Your task to perform on an android device: Open Google Maps and go to "Timeline" Image 0: 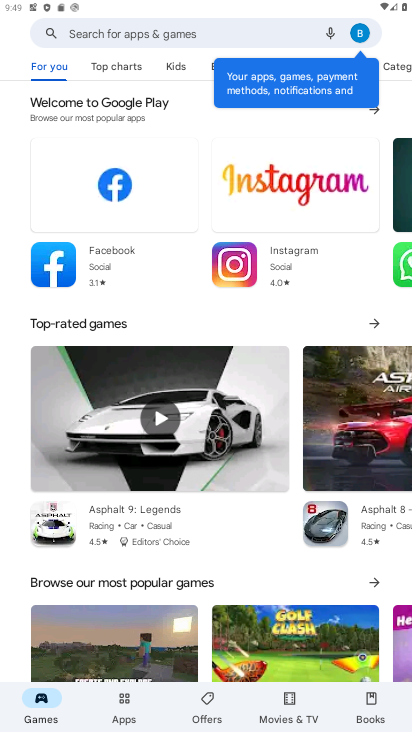
Step 0: press home button
Your task to perform on an android device: Open Google Maps and go to "Timeline" Image 1: 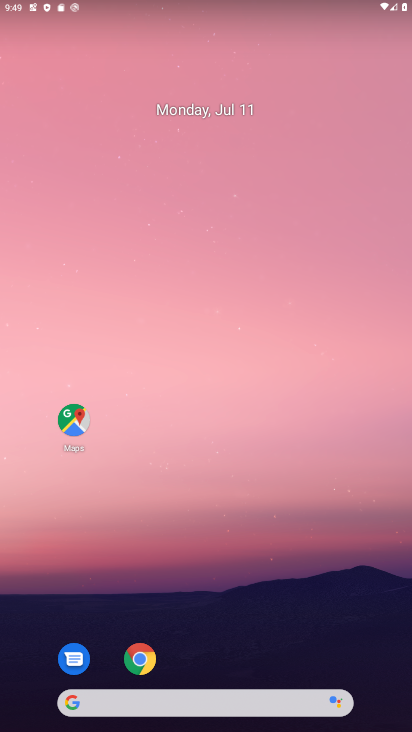
Step 1: drag from (362, 643) to (344, 72)
Your task to perform on an android device: Open Google Maps and go to "Timeline" Image 2: 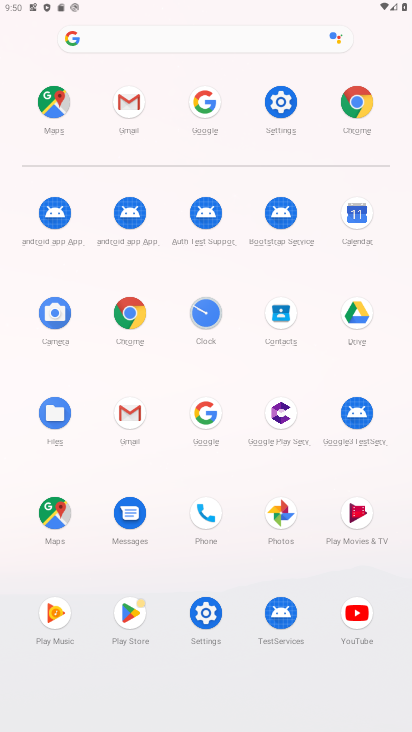
Step 2: click (44, 507)
Your task to perform on an android device: Open Google Maps and go to "Timeline" Image 3: 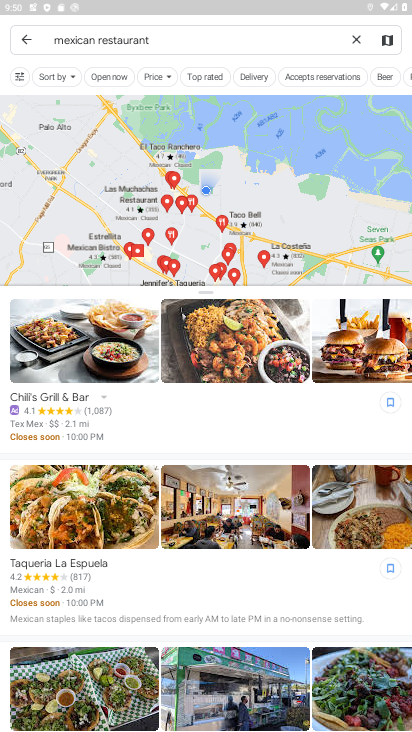
Step 3: click (27, 45)
Your task to perform on an android device: Open Google Maps and go to "Timeline" Image 4: 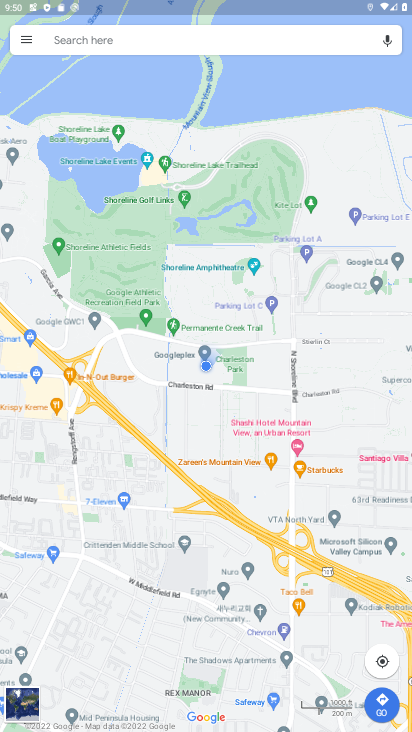
Step 4: click (26, 43)
Your task to perform on an android device: Open Google Maps and go to "Timeline" Image 5: 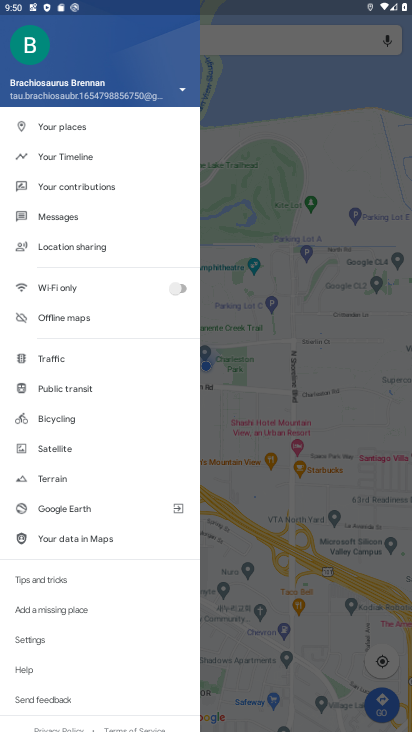
Step 5: click (93, 154)
Your task to perform on an android device: Open Google Maps and go to "Timeline" Image 6: 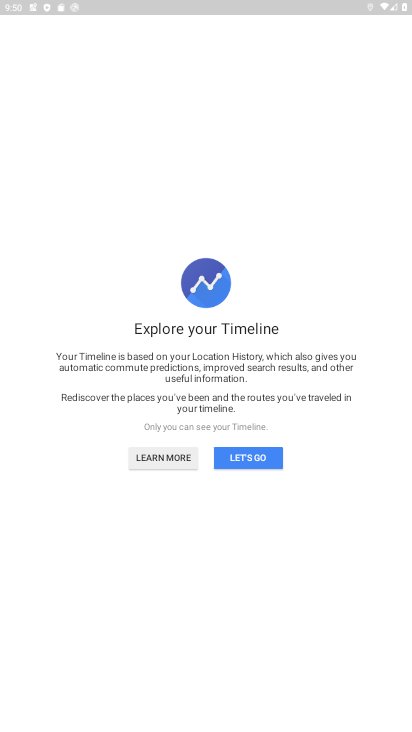
Step 6: task complete